Your task to perform on an android device: Open ESPN.com Image 0: 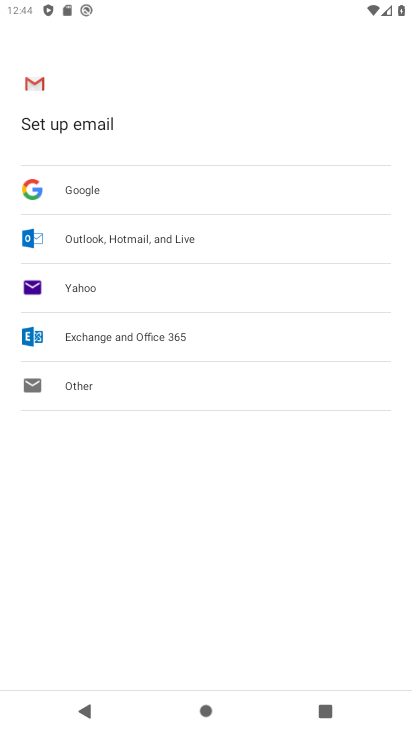
Step 0: press home button
Your task to perform on an android device: Open ESPN.com Image 1: 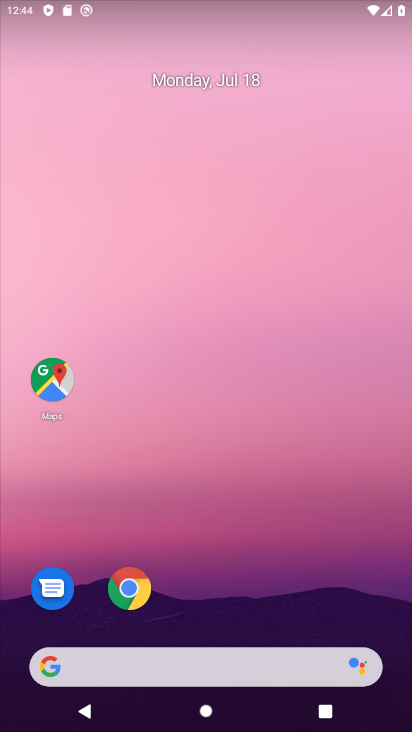
Step 1: click (130, 591)
Your task to perform on an android device: Open ESPN.com Image 2: 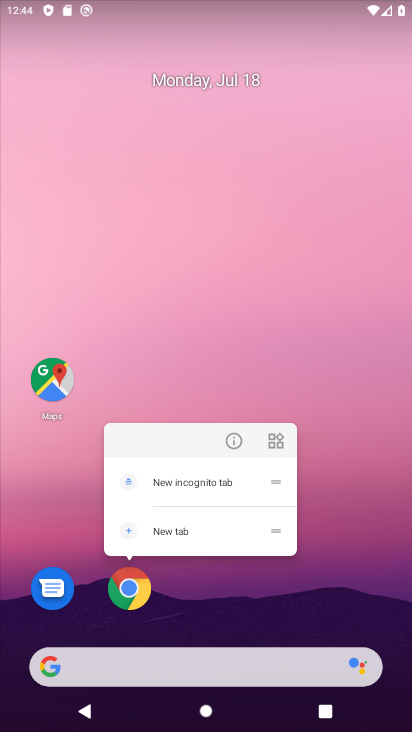
Step 2: click (126, 594)
Your task to perform on an android device: Open ESPN.com Image 3: 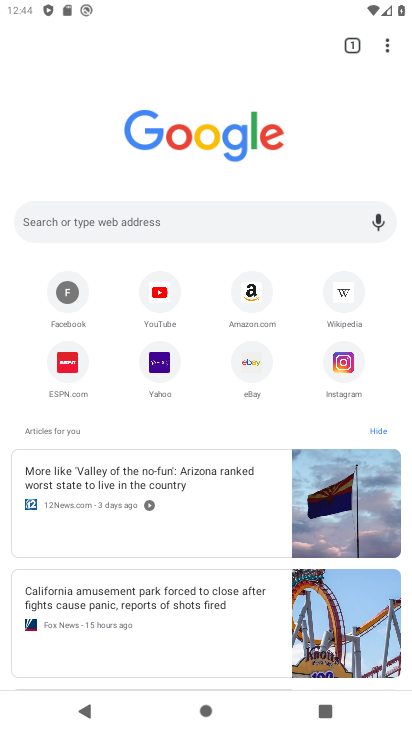
Step 3: click (68, 364)
Your task to perform on an android device: Open ESPN.com Image 4: 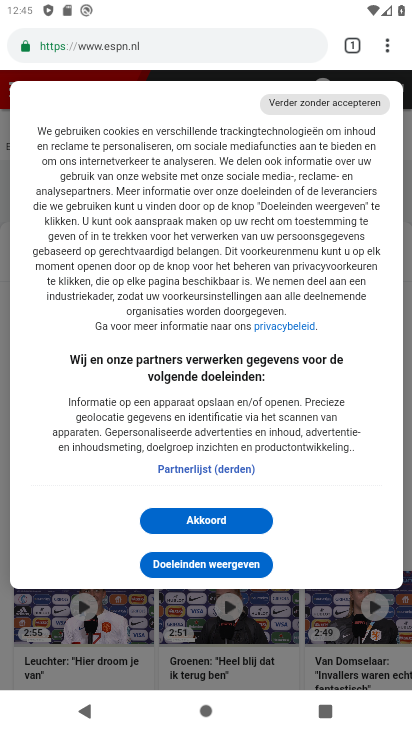
Step 4: task complete